Your task to perform on an android device: turn off javascript in the chrome app Image 0: 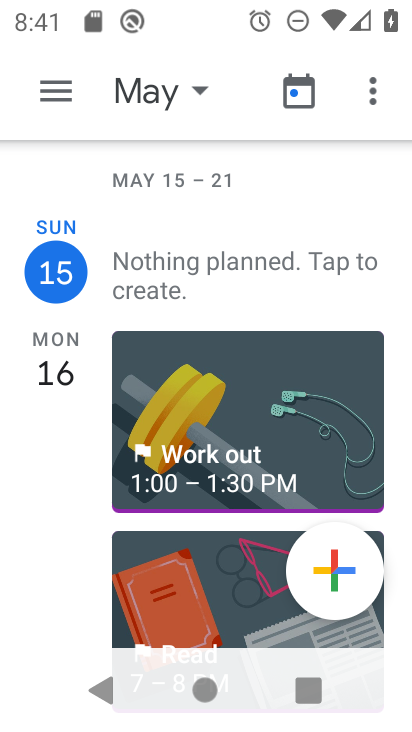
Step 0: press home button
Your task to perform on an android device: turn off javascript in the chrome app Image 1: 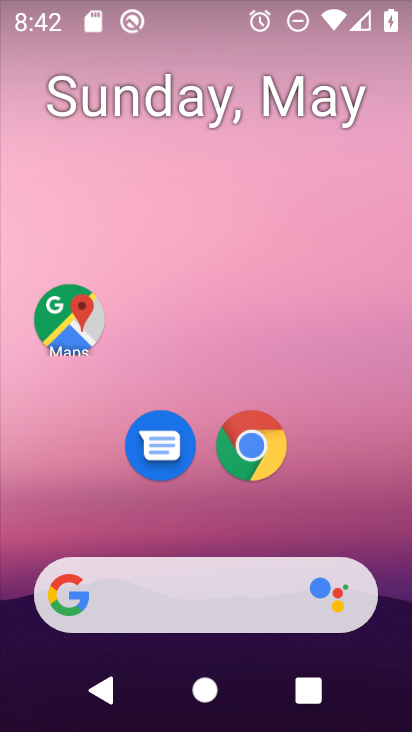
Step 1: drag from (249, 567) to (359, 125)
Your task to perform on an android device: turn off javascript in the chrome app Image 2: 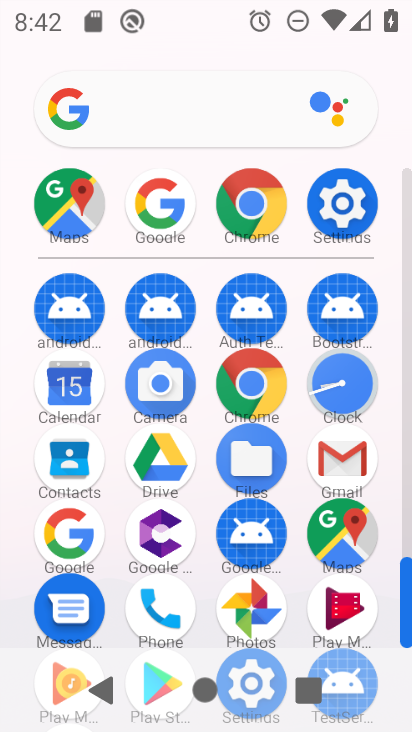
Step 2: click (265, 405)
Your task to perform on an android device: turn off javascript in the chrome app Image 3: 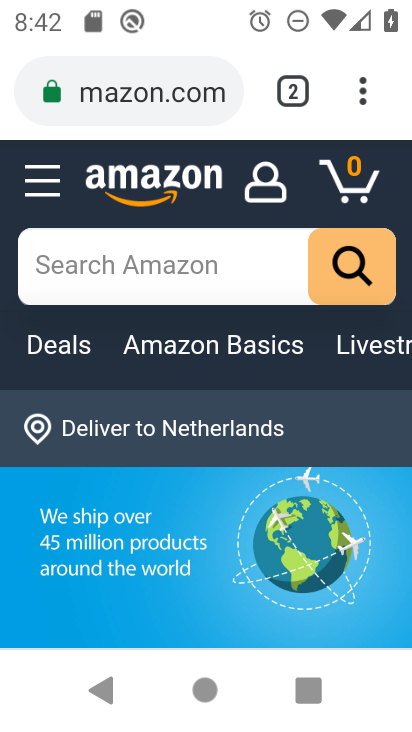
Step 3: click (368, 95)
Your task to perform on an android device: turn off javascript in the chrome app Image 4: 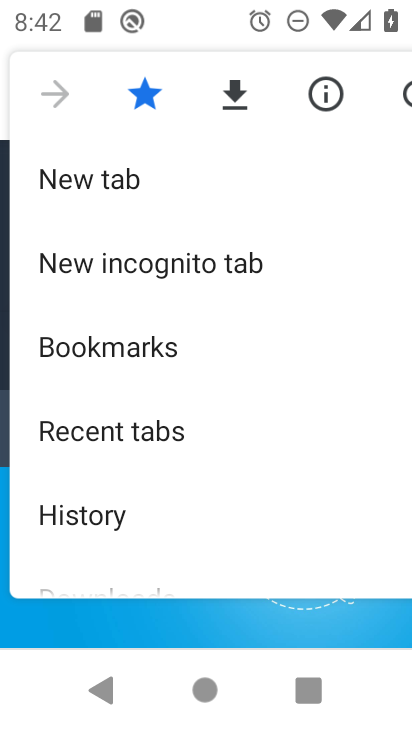
Step 4: drag from (221, 450) to (275, 17)
Your task to perform on an android device: turn off javascript in the chrome app Image 5: 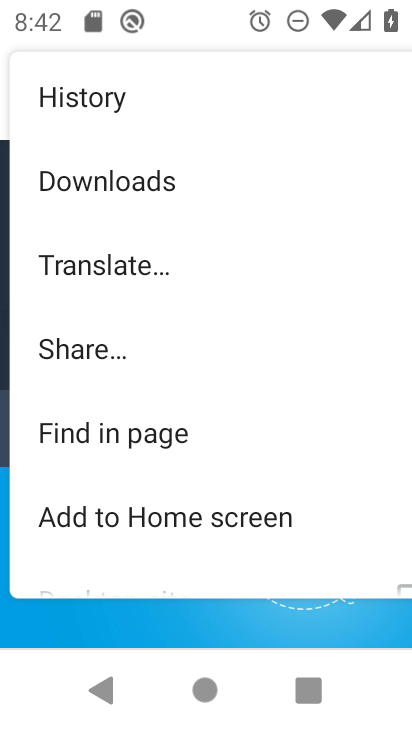
Step 5: drag from (156, 490) to (225, 223)
Your task to perform on an android device: turn off javascript in the chrome app Image 6: 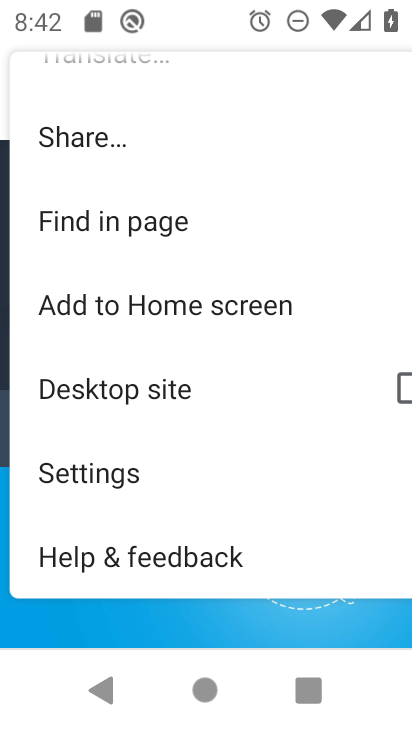
Step 6: click (168, 472)
Your task to perform on an android device: turn off javascript in the chrome app Image 7: 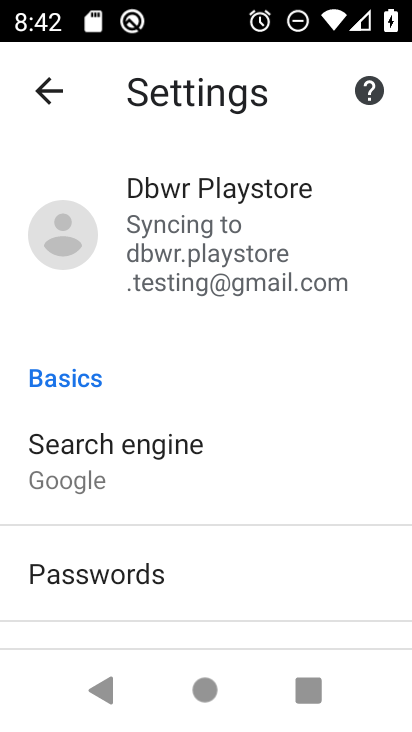
Step 7: drag from (195, 551) to (360, 71)
Your task to perform on an android device: turn off javascript in the chrome app Image 8: 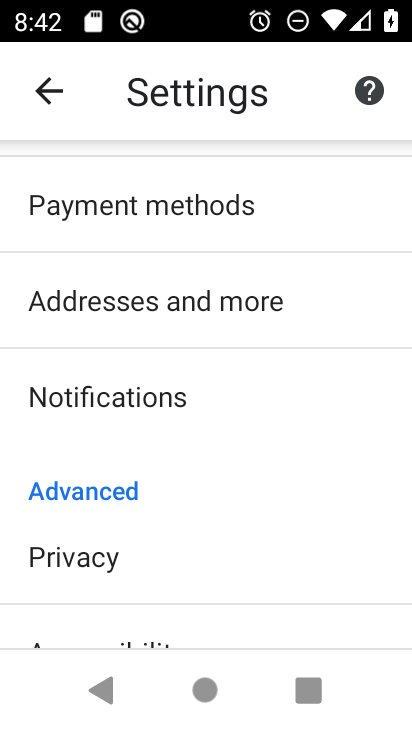
Step 8: drag from (213, 540) to (255, 235)
Your task to perform on an android device: turn off javascript in the chrome app Image 9: 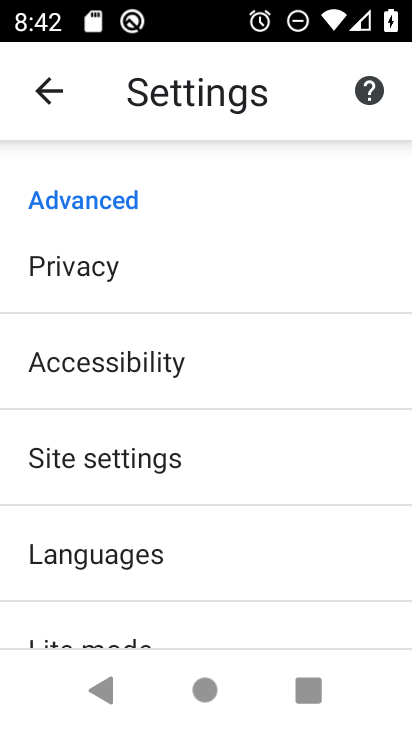
Step 9: drag from (196, 535) to (262, 223)
Your task to perform on an android device: turn off javascript in the chrome app Image 10: 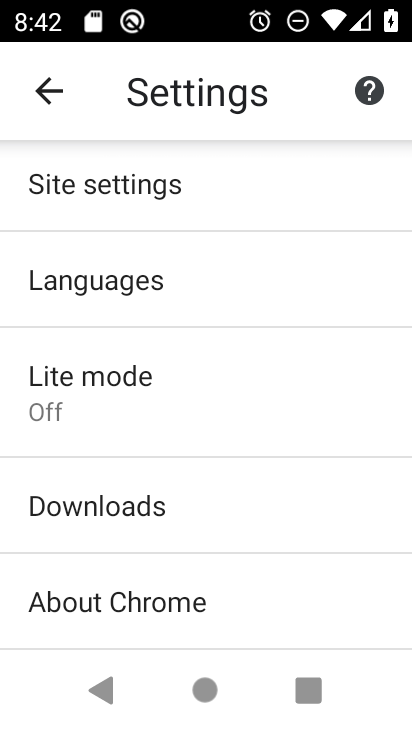
Step 10: drag from (147, 581) to (225, 257)
Your task to perform on an android device: turn off javascript in the chrome app Image 11: 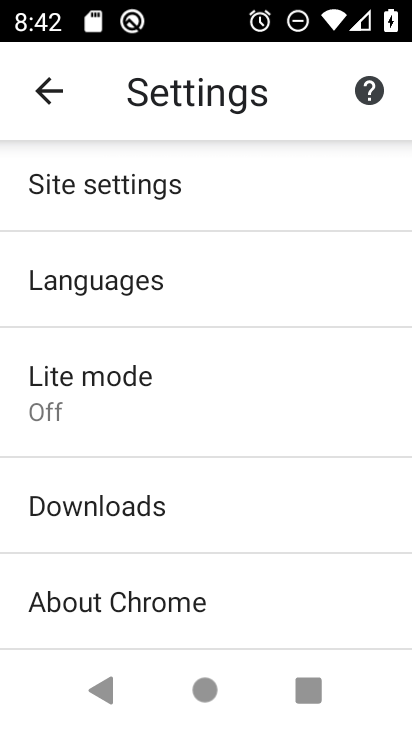
Step 11: click (166, 192)
Your task to perform on an android device: turn off javascript in the chrome app Image 12: 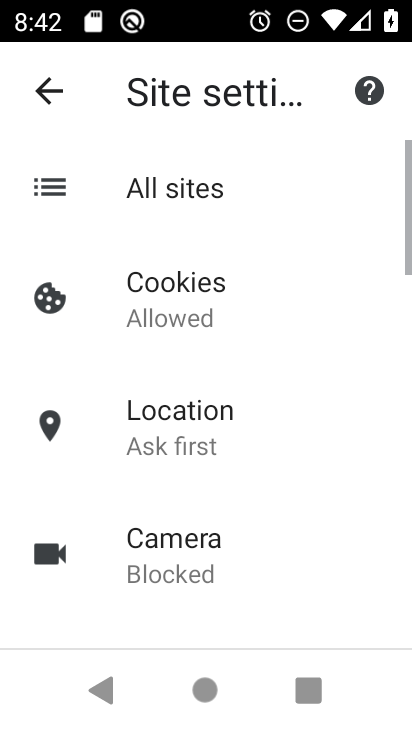
Step 12: drag from (171, 474) to (291, 95)
Your task to perform on an android device: turn off javascript in the chrome app Image 13: 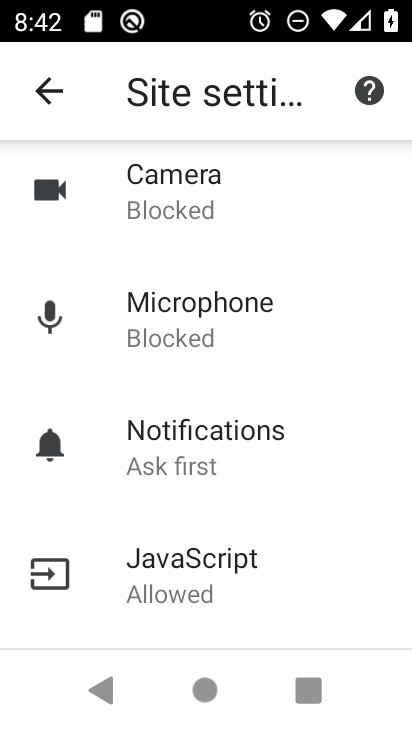
Step 13: drag from (187, 544) to (249, 324)
Your task to perform on an android device: turn off javascript in the chrome app Image 14: 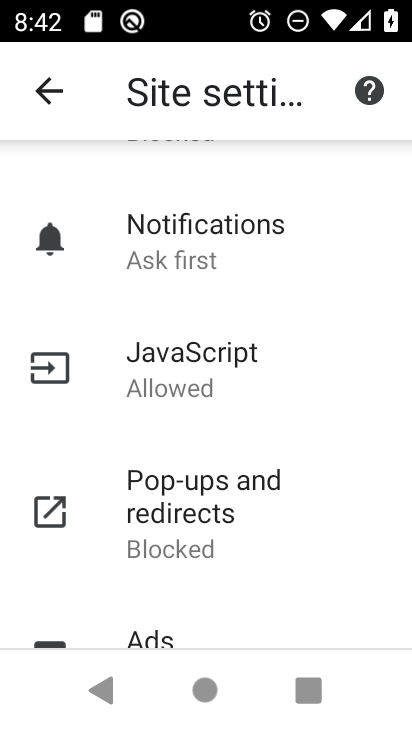
Step 14: drag from (189, 518) to (226, 387)
Your task to perform on an android device: turn off javascript in the chrome app Image 15: 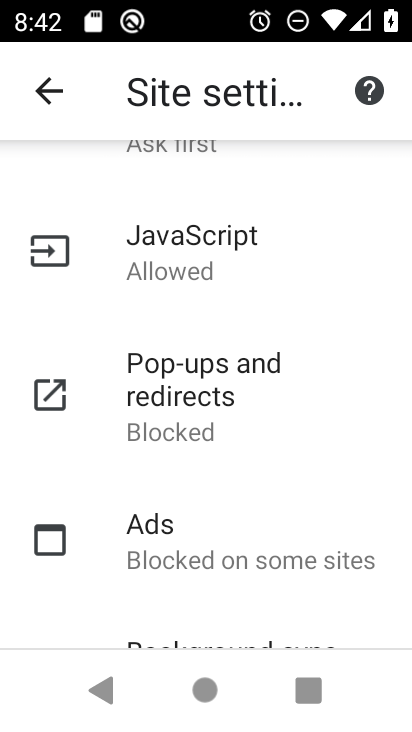
Step 15: click (258, 257)
Your task to perform on an android device: turn off javascript in the chrome app Image 16: 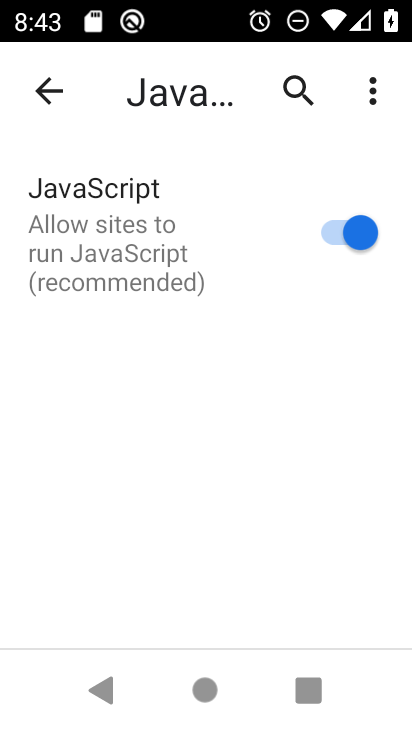
Step 16: click (330, 228)
Your task to perform on an android device: turn off javascript in the chrome app Image 17: 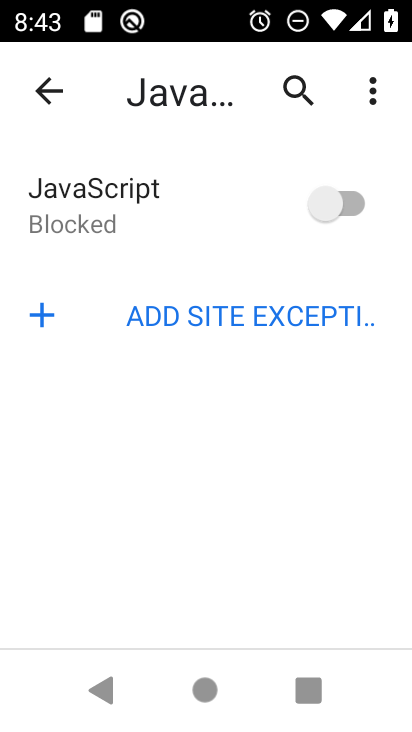
Step 17: task complete